Your task to perform on an android device: open sync settings in chrome Image 0: 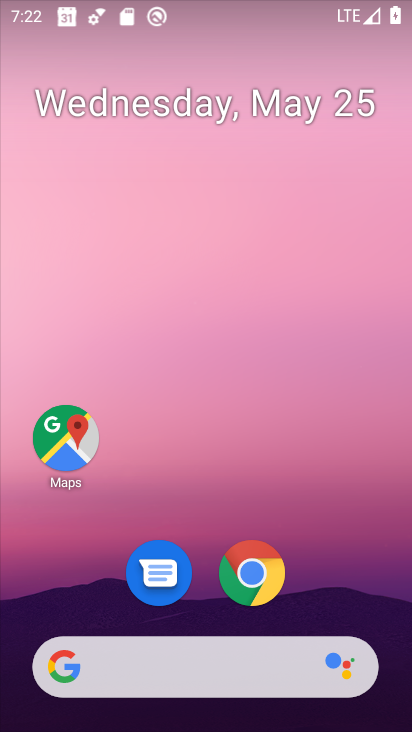
Step 0: click (257, 580)
Your task to perform on an android device: open sync settings in chrome Image 1: 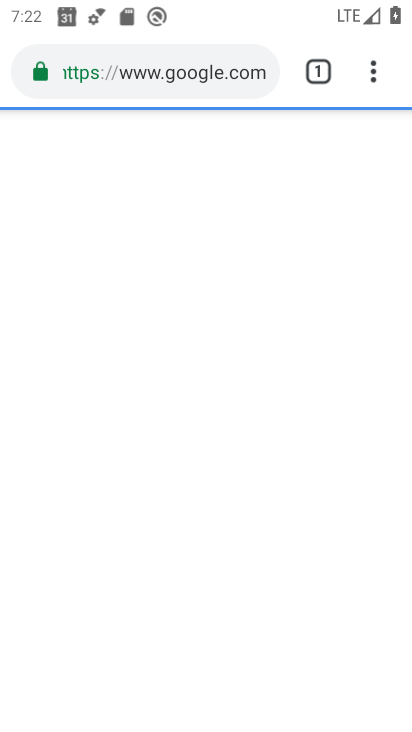
Step 1: click (374, 67)
Your task to perform on an android device: open sync settings in chrome Image 2: 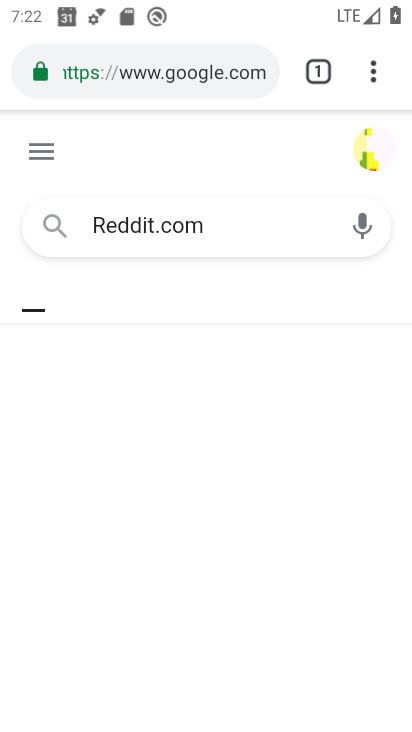
Step 2: click (370, 69)
Your task to perform on an android device: open sync settings in chrome Image 3: 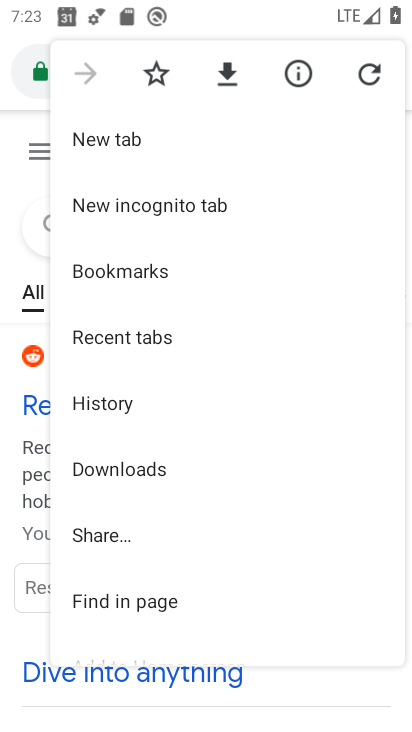
Step 3: drag from (263, 582) to (264, 239)
Your task to perform on an android device: open sync settings in chrome Image 4: 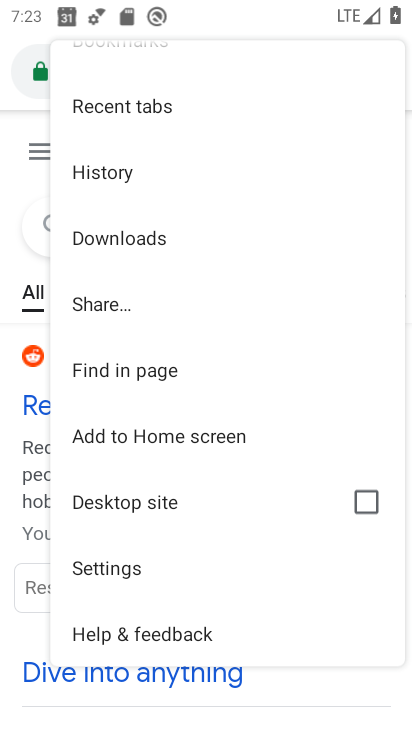
Step 4: click (90, 573)
Your task to perform on an android device: open sync settings in chrome Image 5: 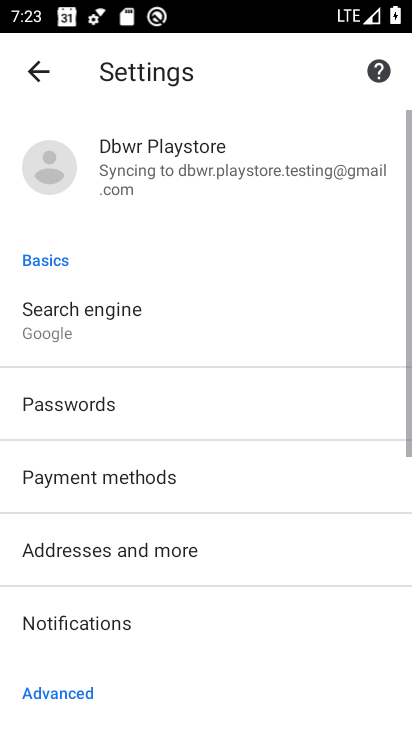
Step 5: drag from (240, 672) to (293, 198)
Your task to perform on an android device: open sync settings in chrome Image 6: 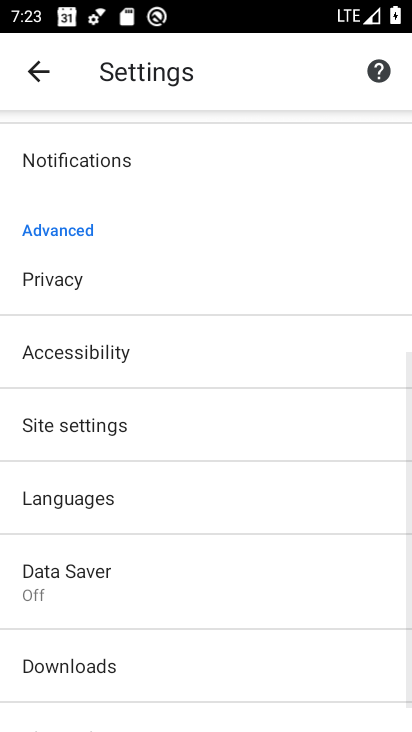
Step 6: click (50, 422)
Your task to perform on an android device: open sync settings in chrome Image 7: 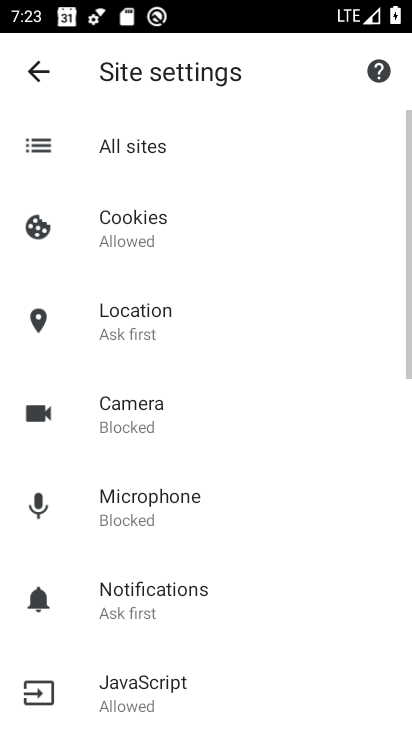
Step 7: drag from (269, 687) to (273, 261)
Your task to perform on an android device: open sync settings in chrome Image 8: 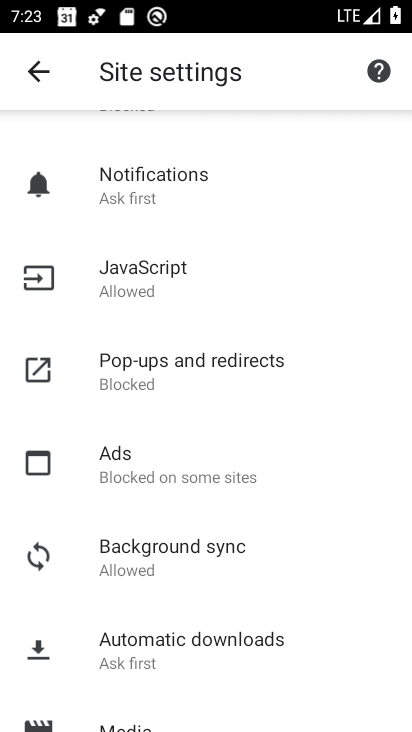
Step 8: click (144, 555)
Your task to perform on an android device: open sync settings in chrome Image 9: 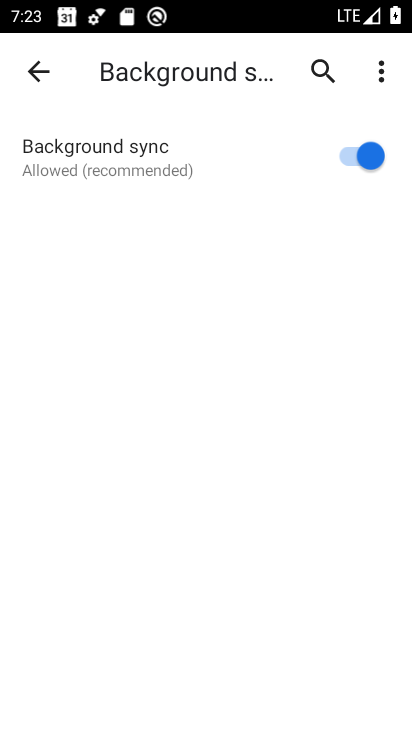
Step 9: task complete